Your task to perform on an android device: open chrome privacy settings Image 0: 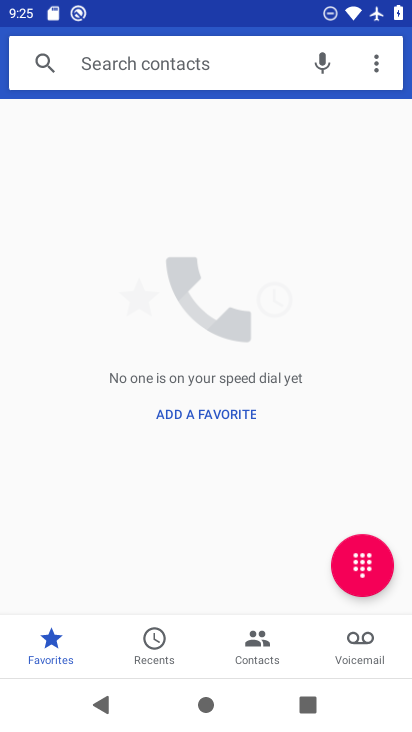
Step 0: press home button
Your task to perform on an android device: open chrome privacy settings Image 1: 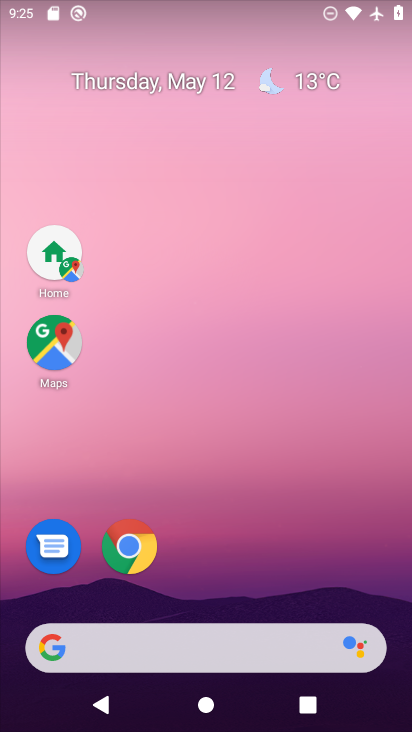
Step 1: drag from (189, 645) to (311, 52)
Your task to perform on an android device: open chrome privacy settings Image 2: 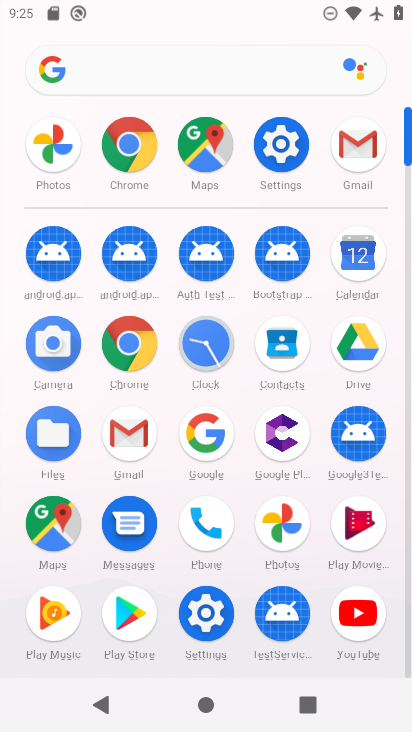
Step 2: click (130, 165)
Your task to perform on an android device: open chrome privacy settings Image 3: 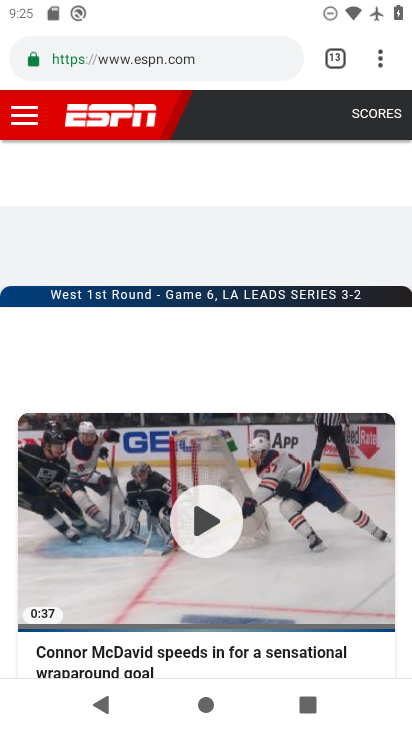
Step 3: drag from (377, 65) to (217, 582)
Your task to perform on an android device: open chrome privacy settings Image 4: 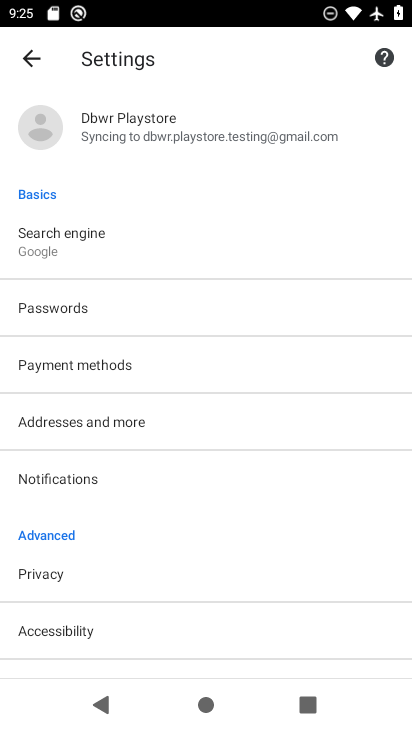
Step 4: click (51, 576)
Your task to perform on an android device: open chrome privacy settings Image 5: 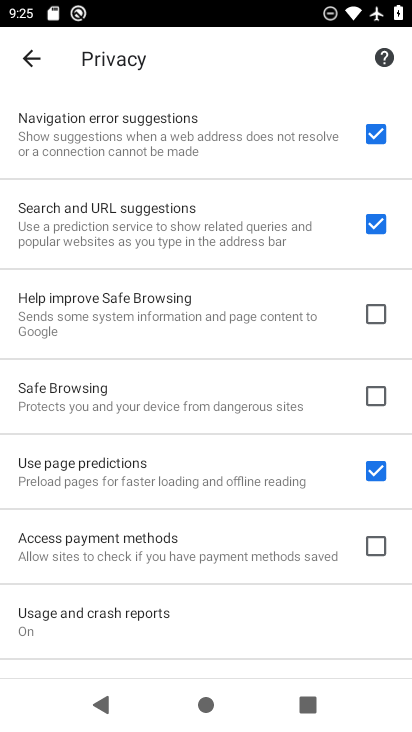
Step 5: task complete